Your task to perform on an android device: set default search engine in the chrome app Image 0: 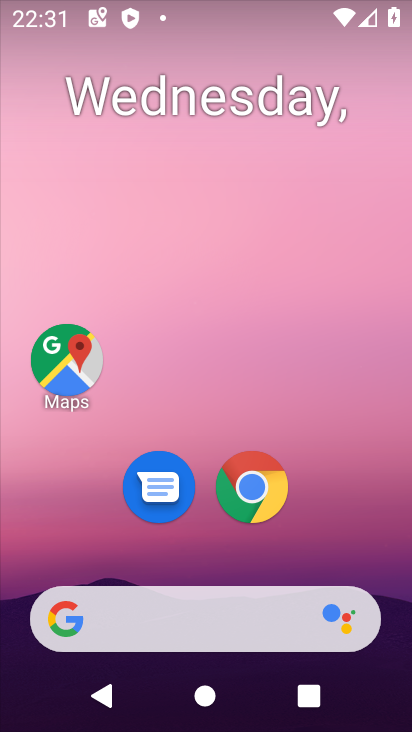
Step 0: click (244, 498)
Your task to perform on an android device: set default search engine in the chrome app Image 1: 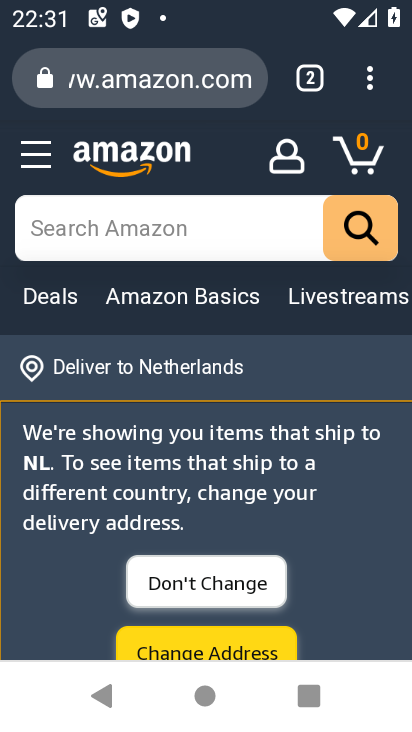
Step 1: click (368, 65)
Your task to perform on an android device: set default search engine in the chrome app Image 2: 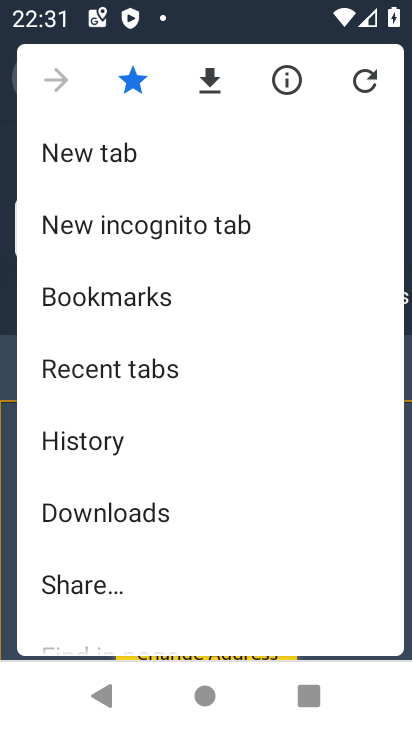
Step 2: drag from (217, 546) to (232, 32)
Your task to perform on an android device: set default search engine in the chrome app Image 3: 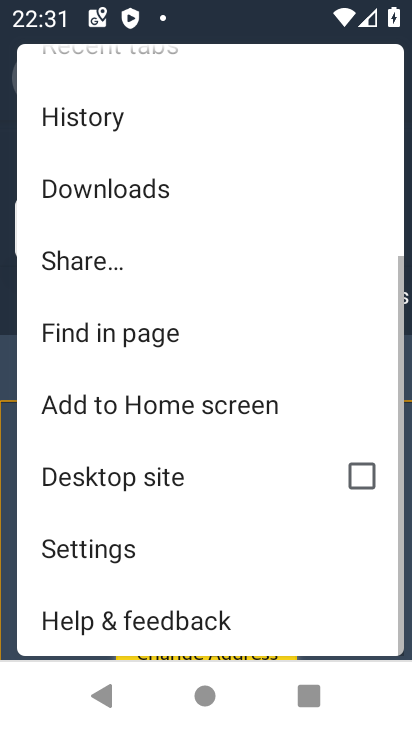
Step 3: click (122, 534)
Your task to perform on an android device: set default search engine in the chrome app Image 4: 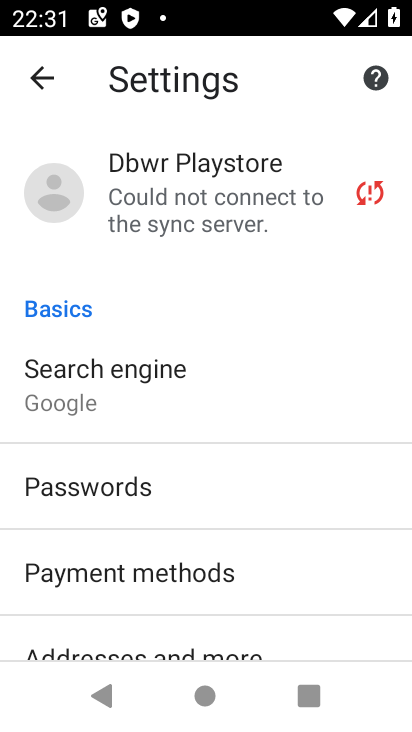
Step 4: click (137, 368)
Your task to perform on an android device: set default search engine in the chrome app Image 5: 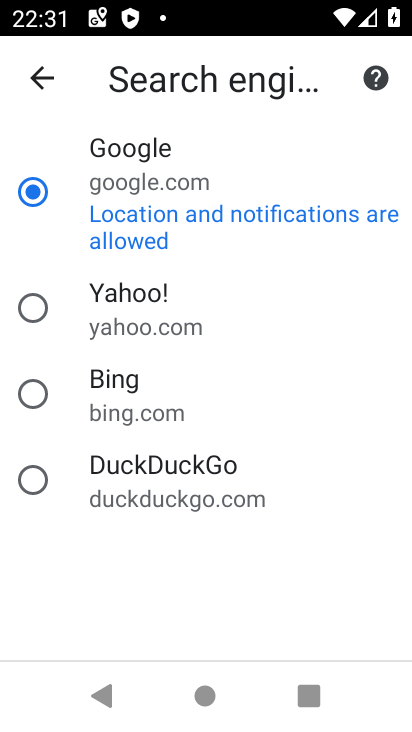
Step 5: task complete